Your task to perform on an android device: set the stopwatch Image 0: 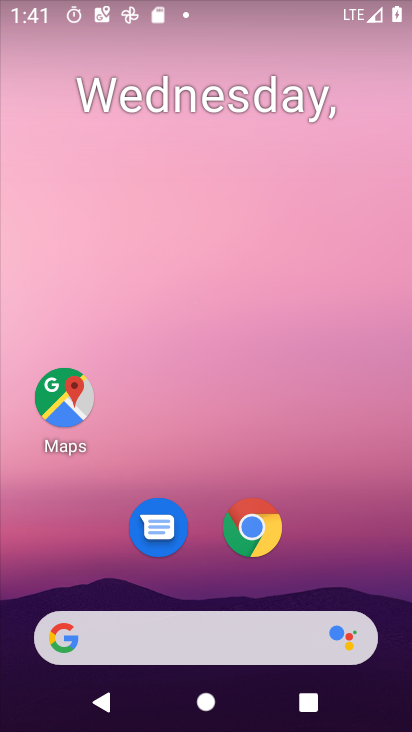
Step 0: drag from (220, 640) to (243, 1)
Your task to perform on an android device: set the stopwatch Image 1: 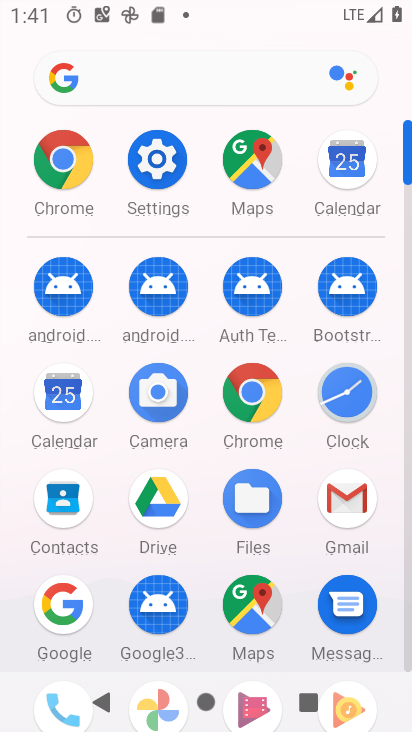
Step 1: click (340, 403)
Your task to perform on an android device: set the stopwatch Image 2: 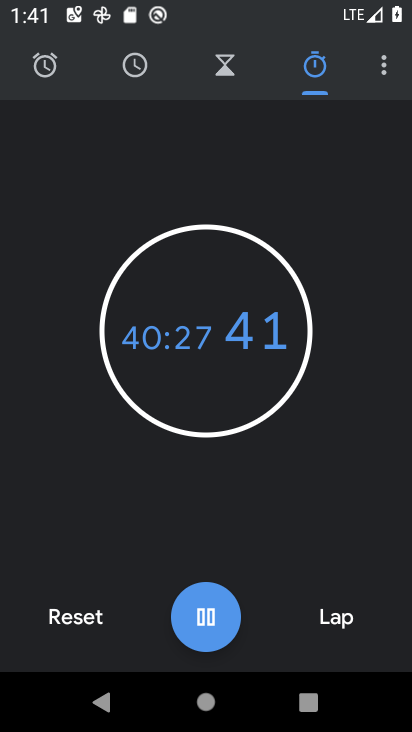
Step 2: task complete